Your task to perform on an android device: Do I have any events this weekend? Image 0: 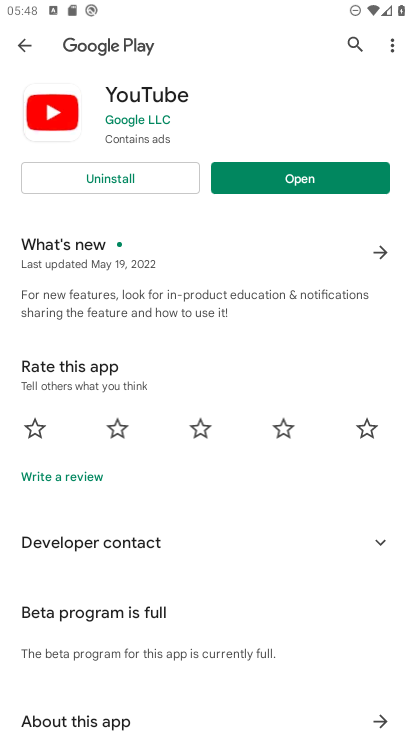
Step 0: press home button
Your task to perform on an android device: Do I have any events this weekend? Image 1: 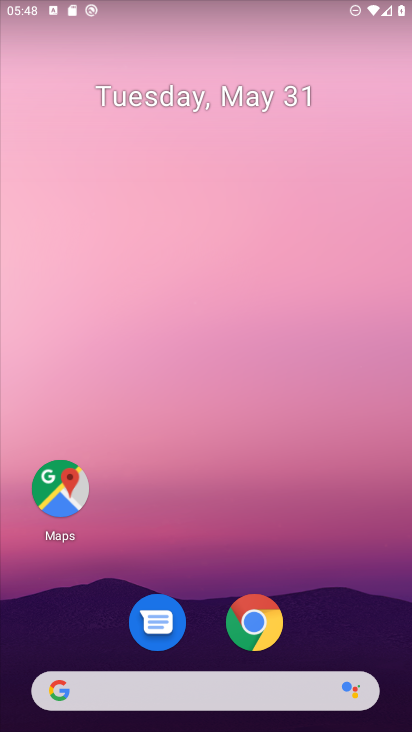
Step 1: drag from (289, 666) to (371, 1)
Your task to perform on an android device: Do I have any events this weekend? Image 2: 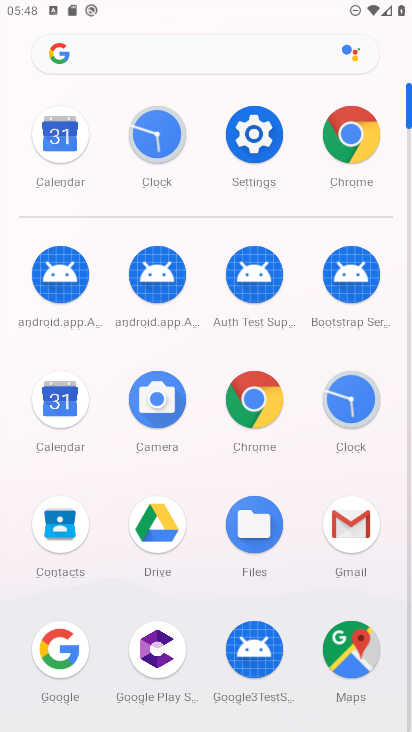
Step 2: click (54, 409)
Your task to perform on an android device: Do I have any events this weekend? Image 3: 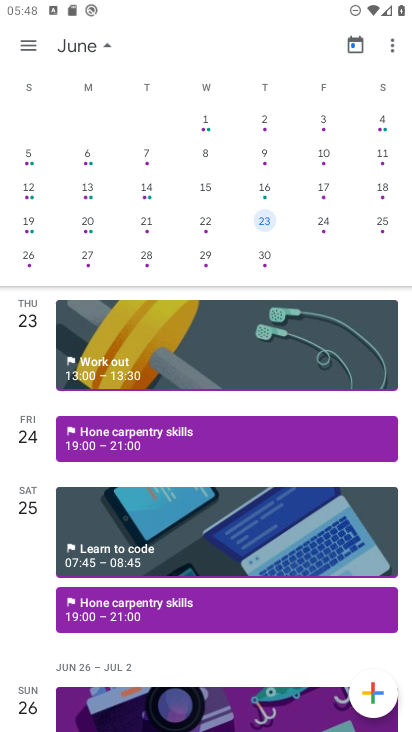
Step 3: click (264, 121)
Your task to perform on an android device: Do I have any events this weekend? Image 4: 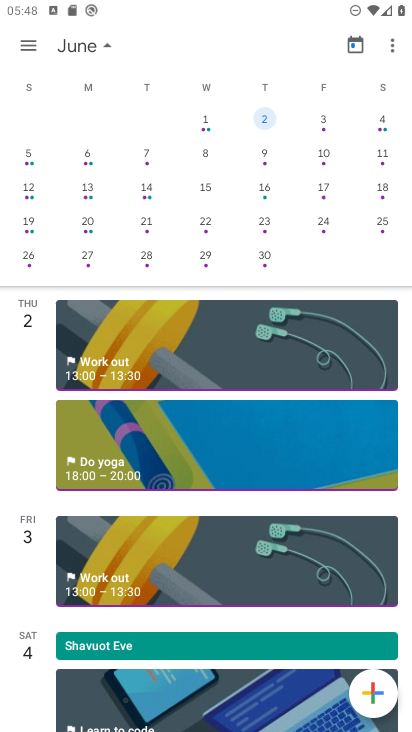
Step 4: click (30, 48)
Your task to perform on an android device: Do I have any events this weekend? Image 5: 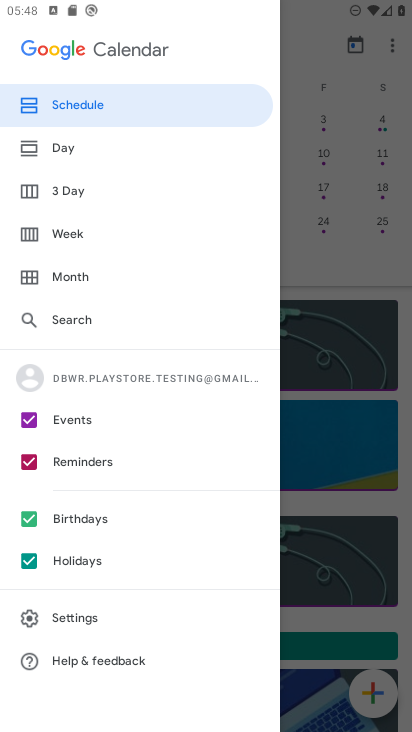
Step 5: click (88, 227)
Your task to perform on an android device: Do I have any events this weekend? Image 6: 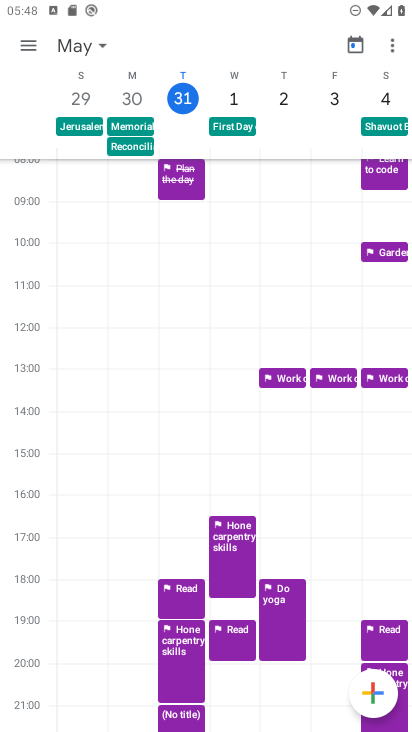
Step 6: task complete